Your task to perform on an android device: clear history in the chrome app Image 0: 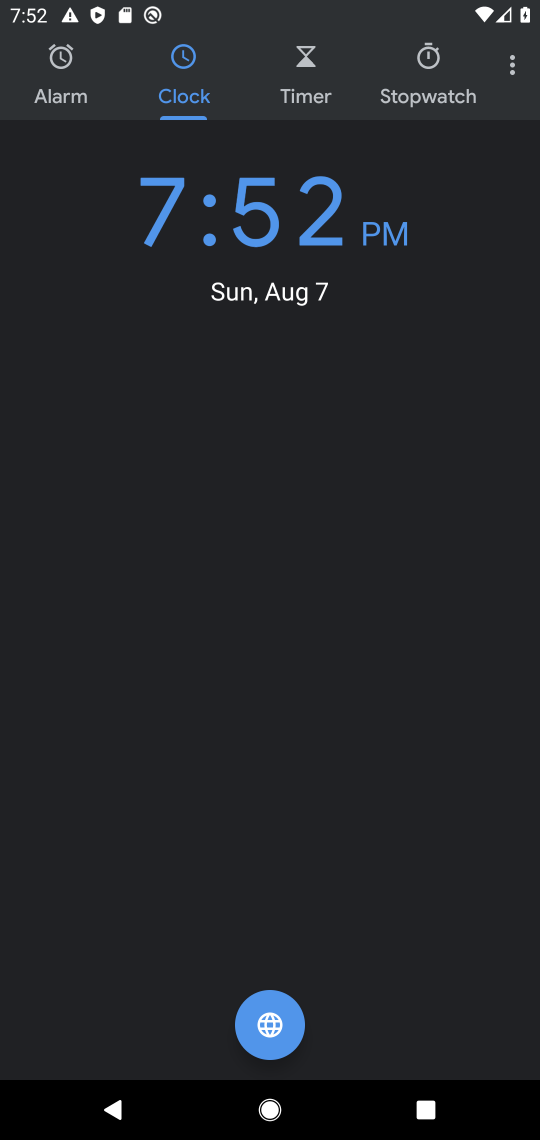
Step 0: press home button
Your task to perform on an android device: clear history in the chrome app Image 1: 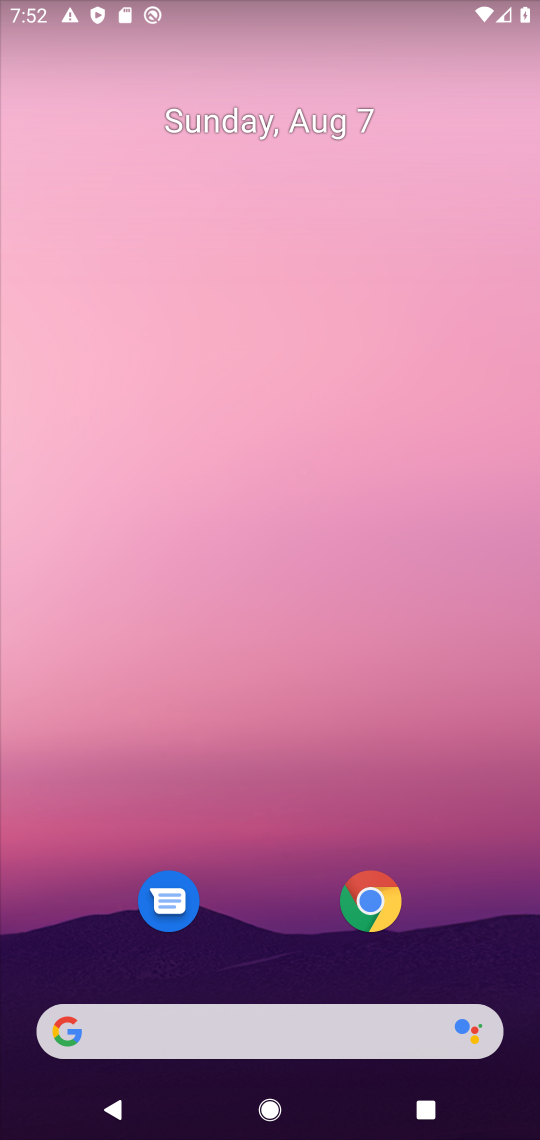
Step 1: click (361, 892)
Your task to perform on an android device: clear history in the chrome app Image 2: 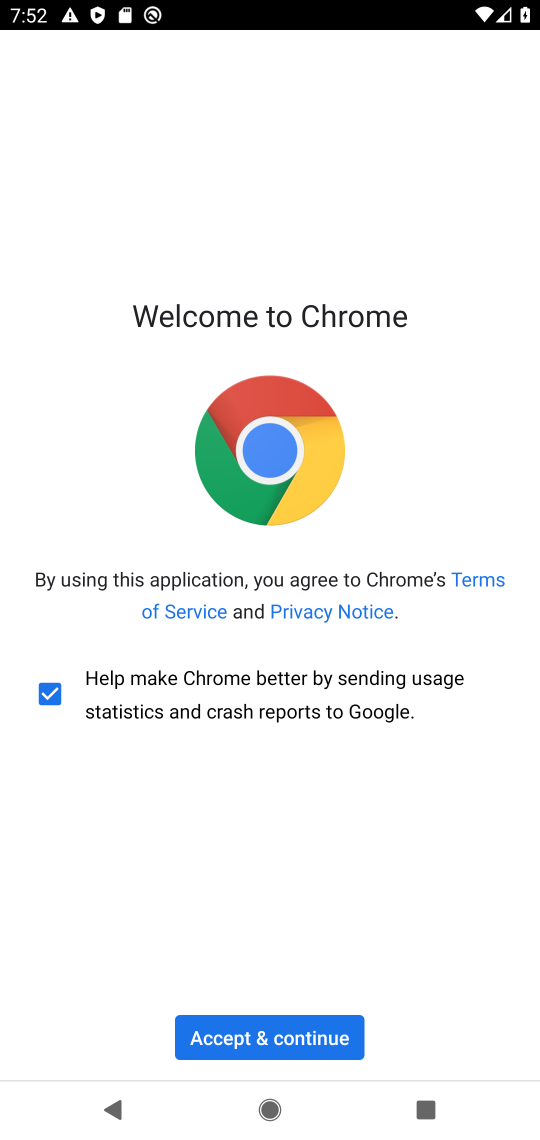
Step 2: click (288, 1039)
Your task to perform on an android device: clear history in the chrome app Image 3: 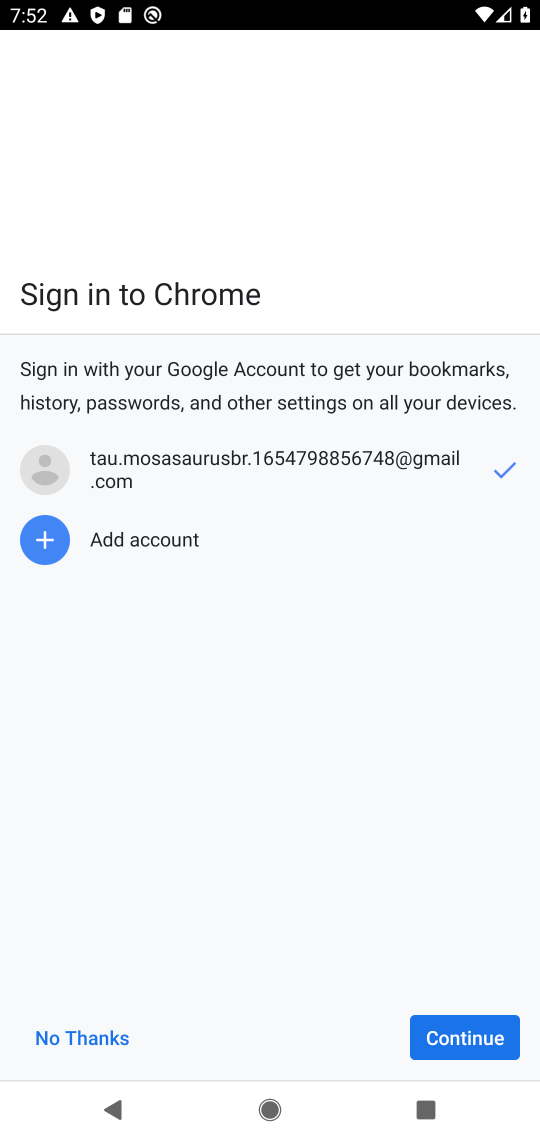
Step 3: click (466, 1038)
Your task to perform on an android device: clear history in the chrome app Image 4: 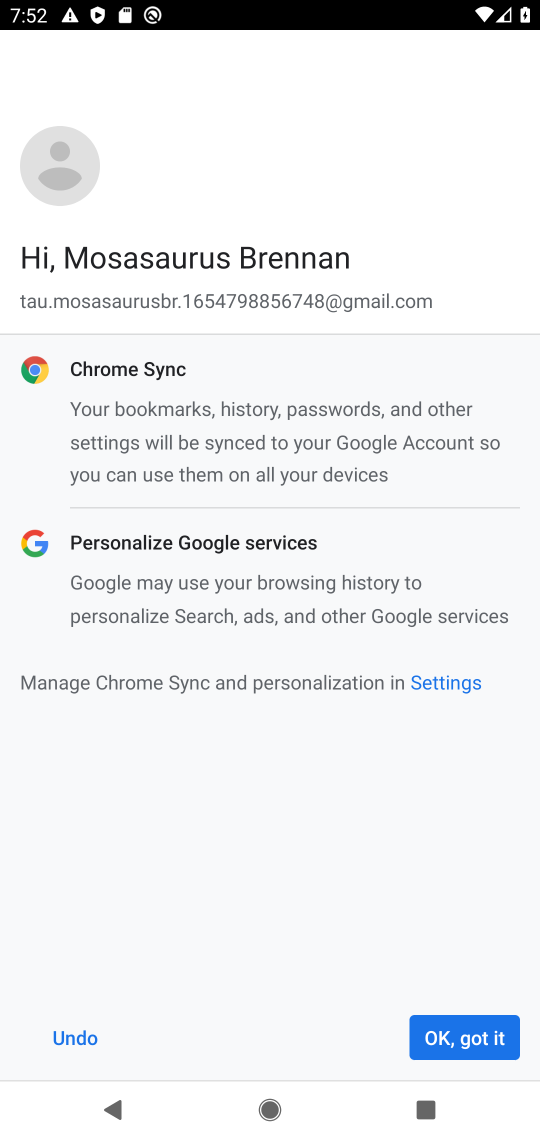
Step 4: click (466, 1038)
Your task to perform on an android device: clear history in the chrome app Image 5: 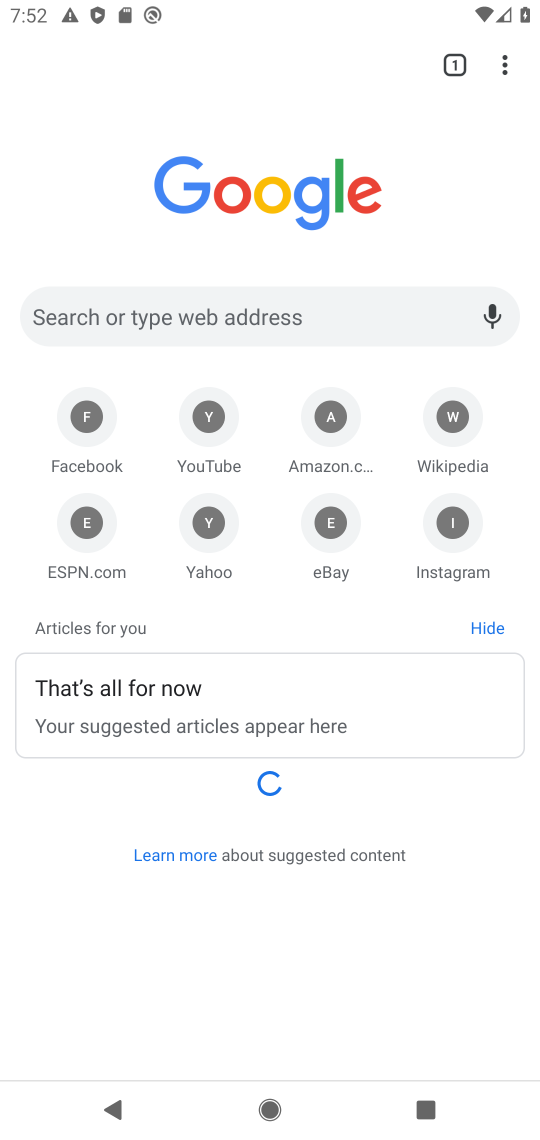
Step 5: click (504, 64)
Your task to perform on an android device: clear history in the chrome app Image 6: 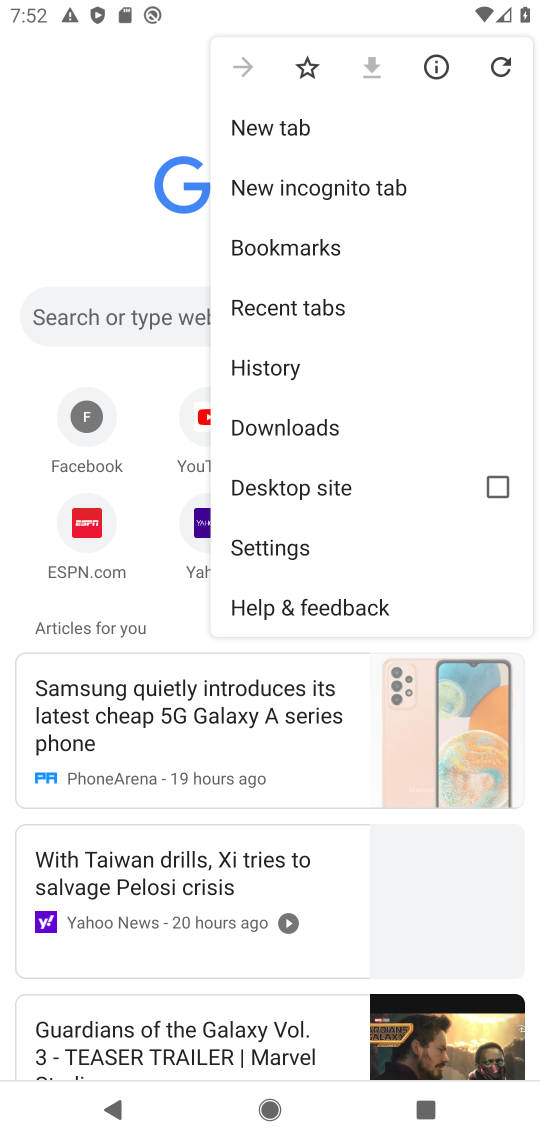
Step 6: click (269, 368)
Your task to perform on an android device: clear history in the chrome app Image 7: 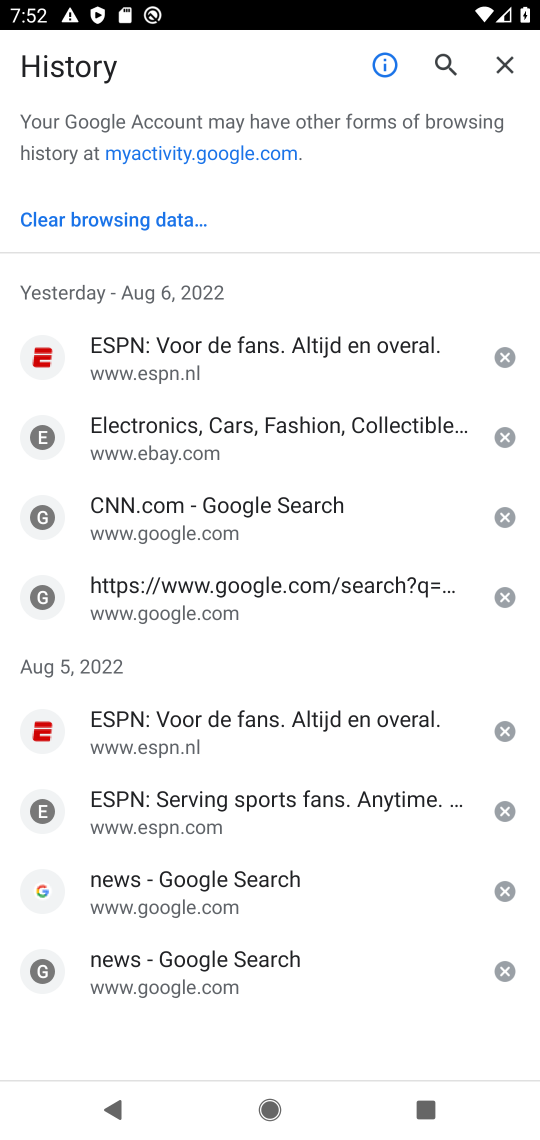
Step 7: click (269, 368)
Your task to perform on an android device: clear history in the chrome app Image 8: 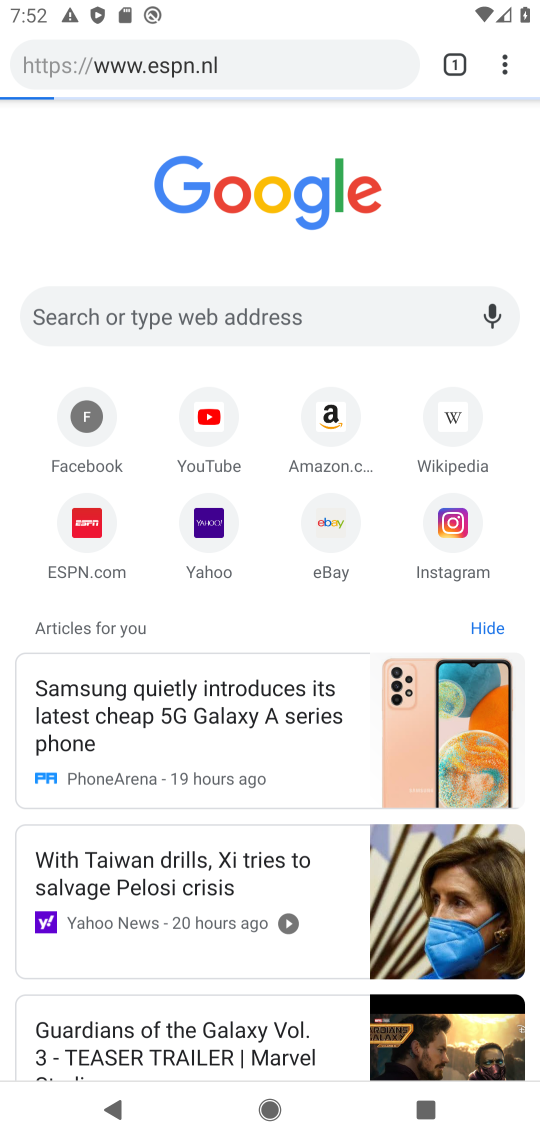
Step 8: click (142, 219)
Your task to perform on an android device: clear history in the chrome app Image 9: 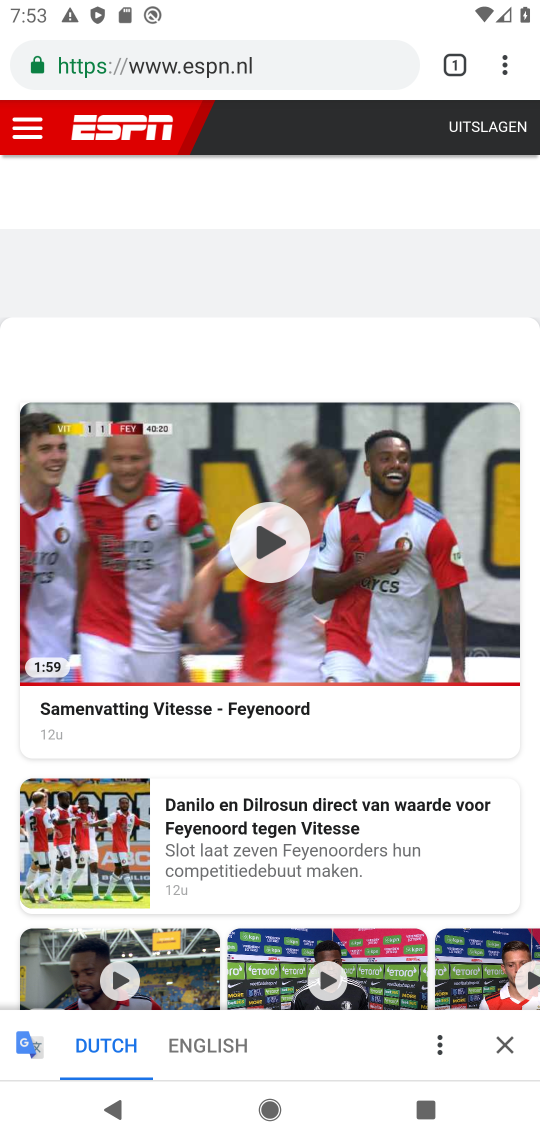
Step 9: click (500, 62)
Your task to perform on an android device: clear history in the chrome app Image 10: 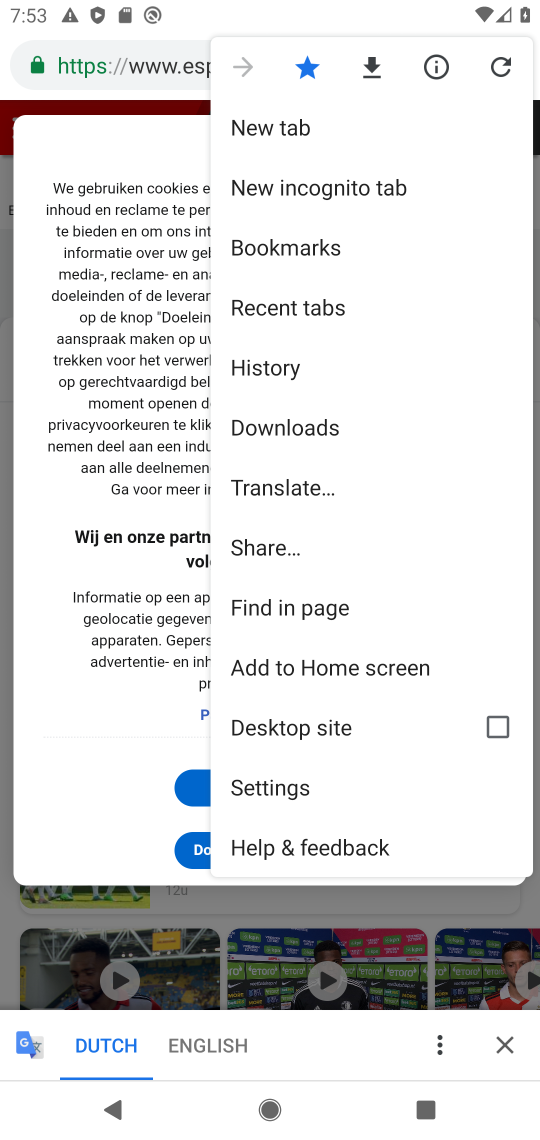
Step 10: click (277, 373)
Your task to perform on an android device: clear history in the chrome app Image 11: 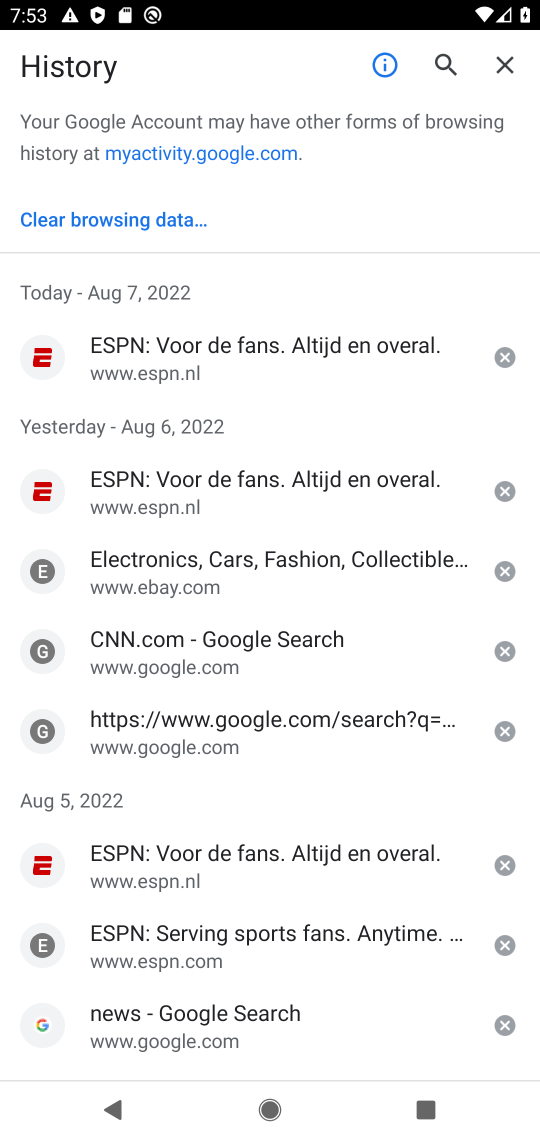
Step 11: click (158, 213)
Your task to perform on an android device: clear history in the chrome app Image 12: 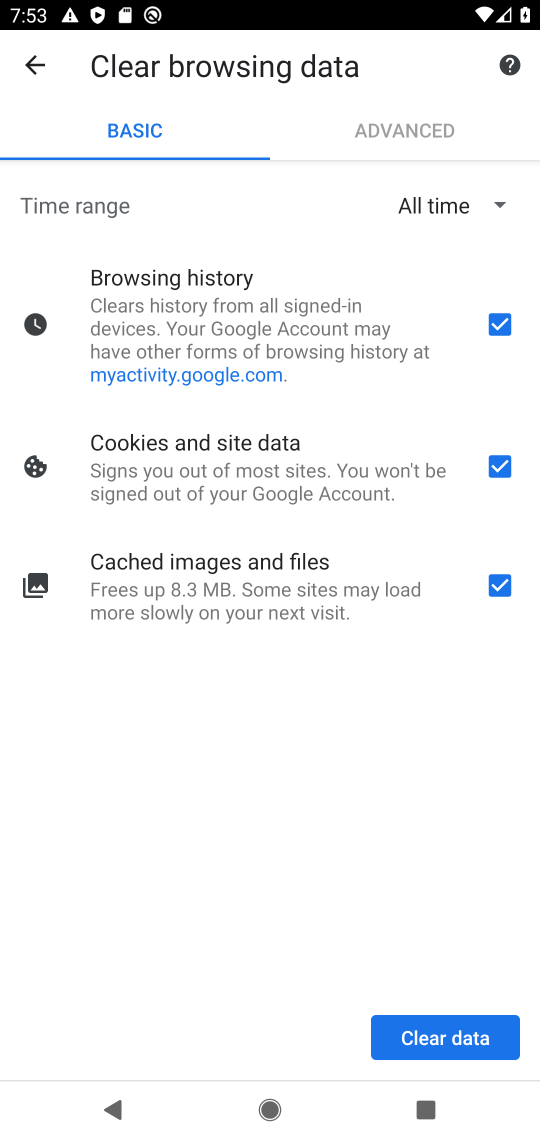
Step 12: click (460, 1031)
Your task to perform on an android device: clear history in the chrome app Image 13: 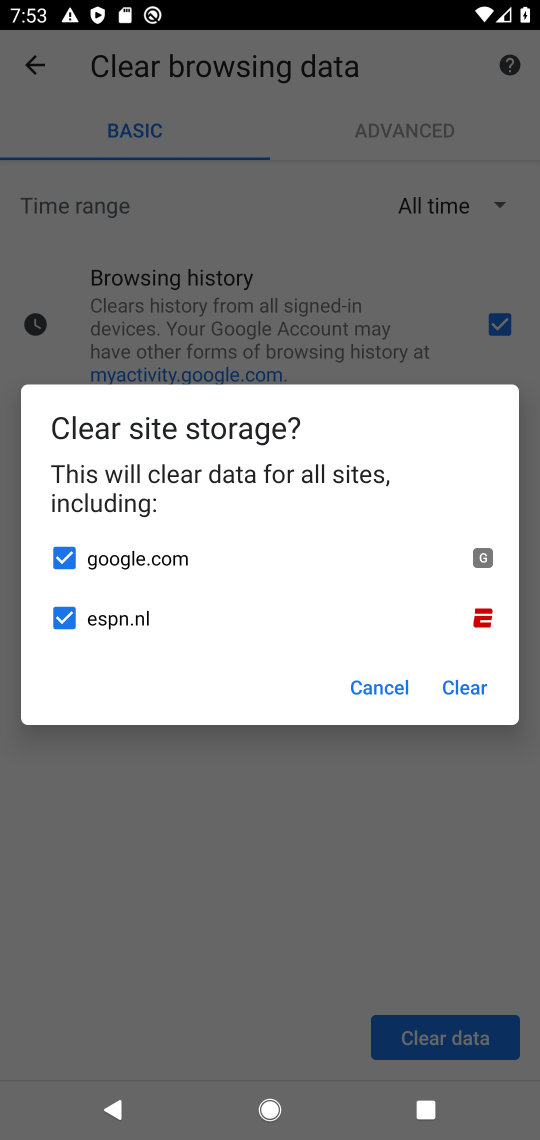
Step 13: click (62, 615)
Your task to perform on an android device: clear history in the chrome app Image 14: 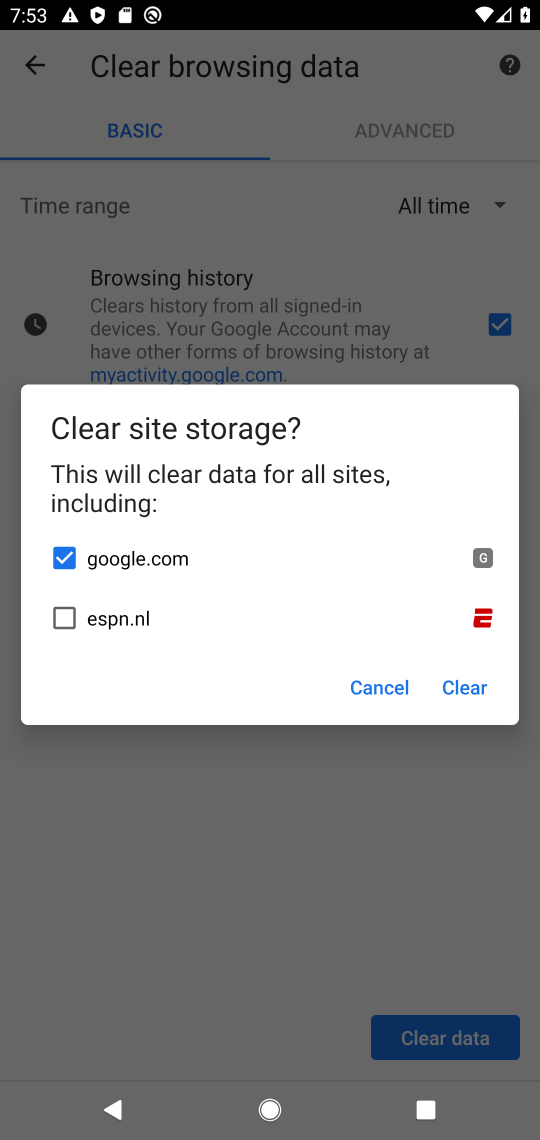
Step 14: click (57, 554)
Your task to perform on an android device: clear history in the chrome app Image 15: 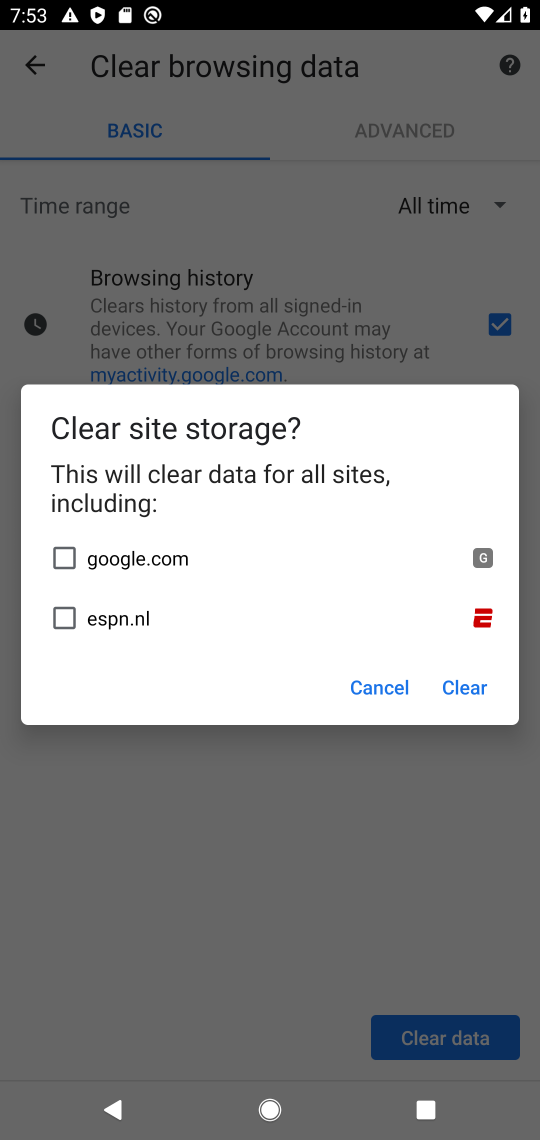
Step 15: click (460, 693)
Your task to perform on an android device: clear history in the chrome app Image 16: 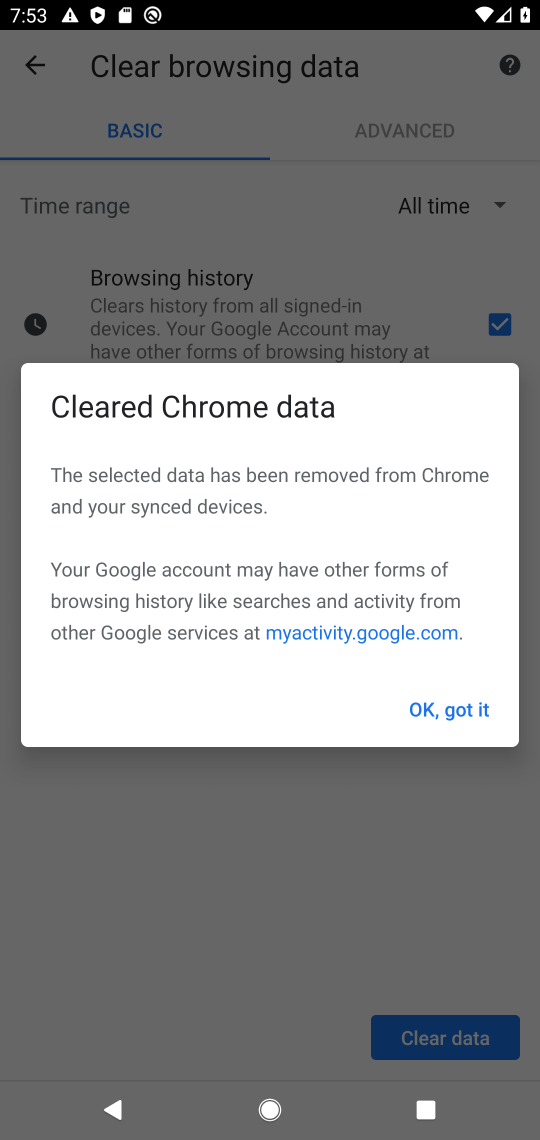
Step 16: click (448, 713)
Your task to perform on an android device: clear history in the chrome app Image 17: 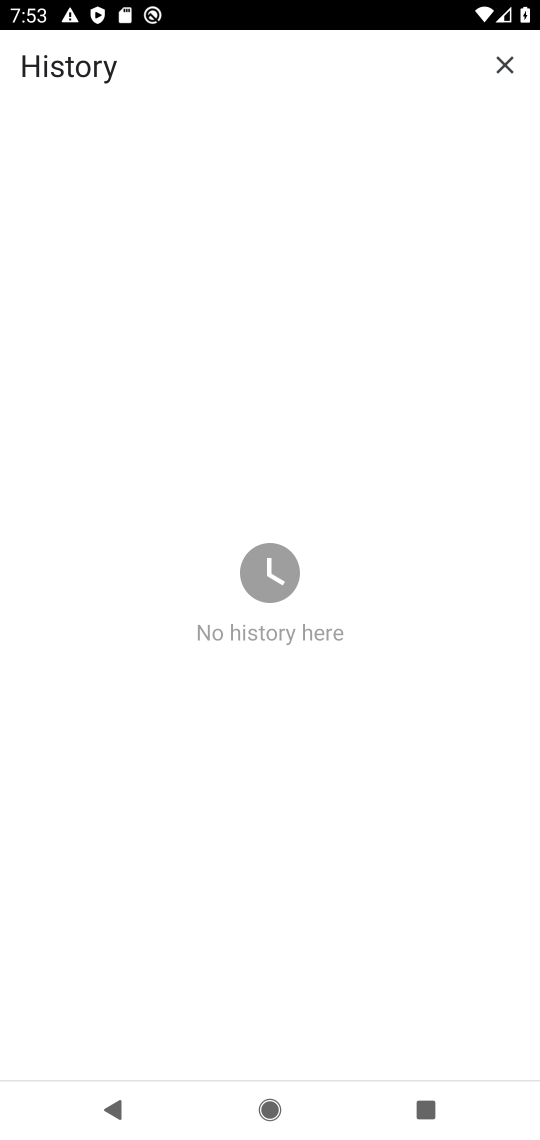
Step 17: click (508, 63)
Your task to perform on an android device: clear history in the chrome app Image 18: 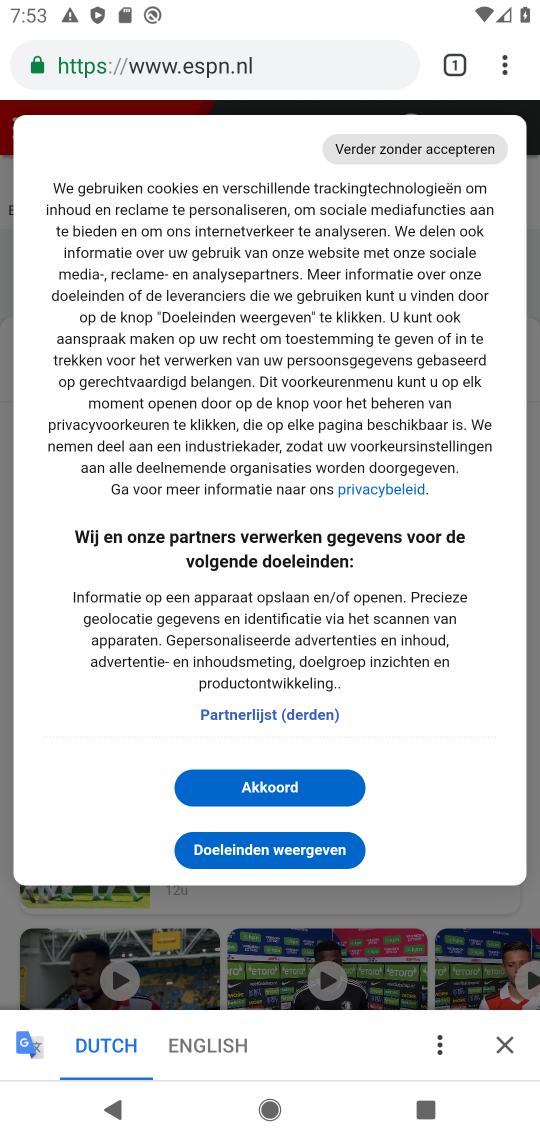
Step 18: click (234, 791)
Your task to perform on an android device: clear history in the chrome app Image 19: 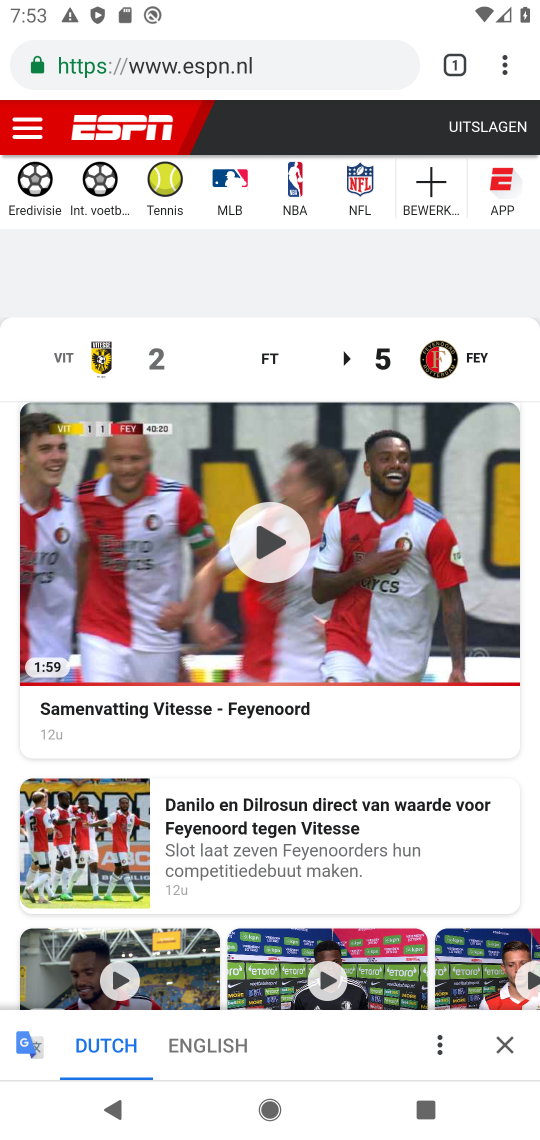
Step 19: task complete